Your task to perform on an android device: delete a single message in the gmail app Image 0: 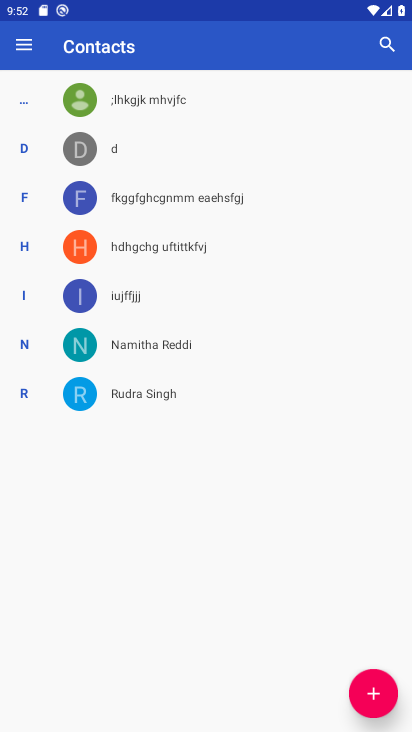
Step 0: press home button
Your task to perform on an android device: delete a single message in the gmail app Image 1: 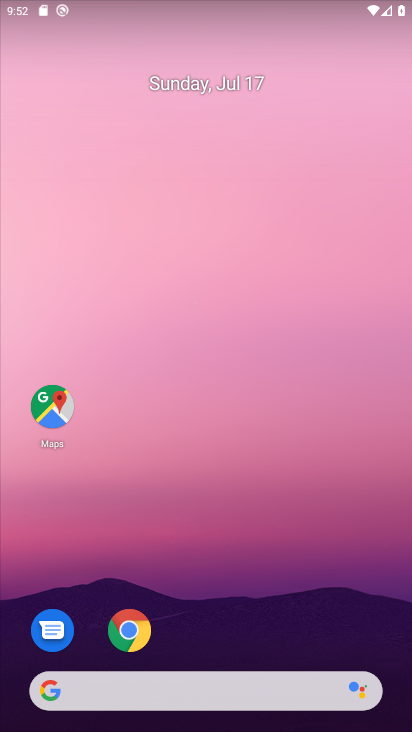
Step 1: drag from (215, 651) to (223, 84)
Your task to perform on an android device: delete a single message in the gmail app Image 2: 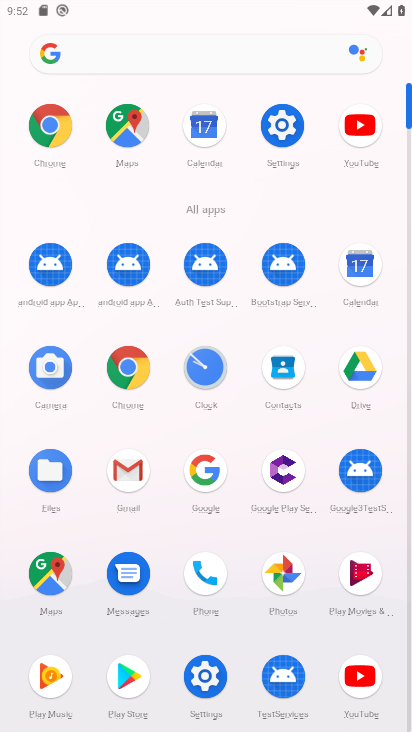
Step 2: click (127, 470)
Your task to perform on an android device: delete a single message in the gmail app Image 3: 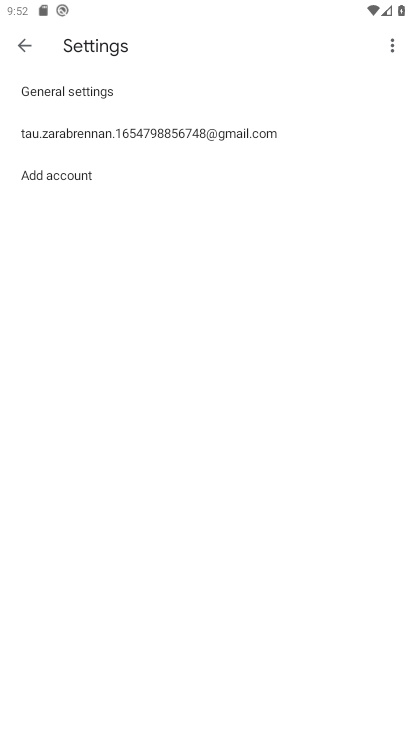
Step 3: click (22, 47)
Your task to perform on an android device: delete a single message in the gmail app Image 4: 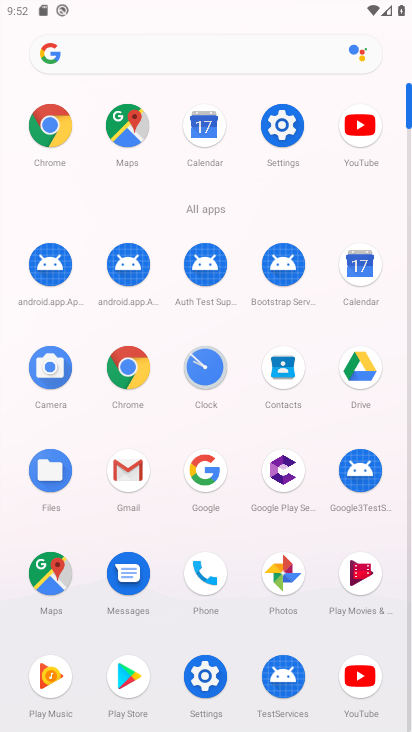
Step 4: click (143, 475)
Your task to perform on an android device: delete a single message in the gmail app Image 5: 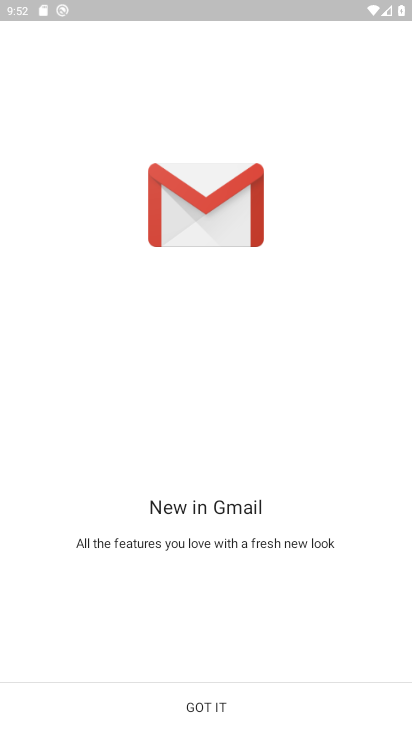
Step 5: click (238, 710)
Your task to perform on an android device: delete a single message in the gmail app Image 6: 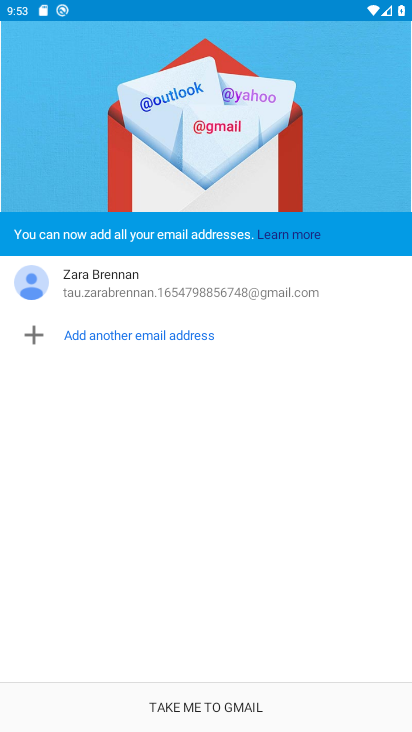
Step 6: click (244, 717)
Your task to perform on an android device: delete a single message in the gmail app Image 7: 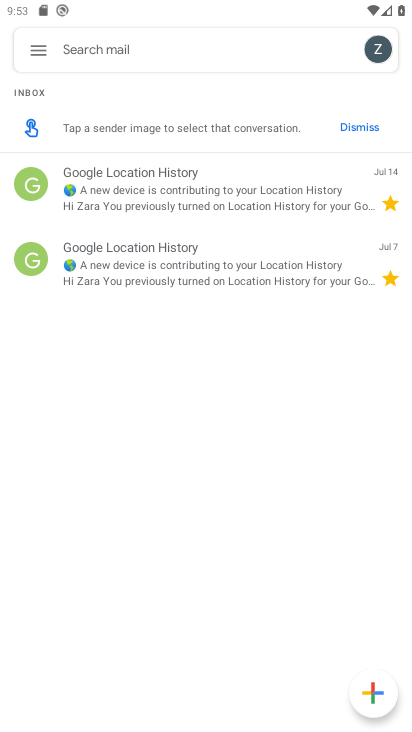
Step 7: click (35, 261)
Your task to perform on an android device: delete a single message in the gmail app Image 8: 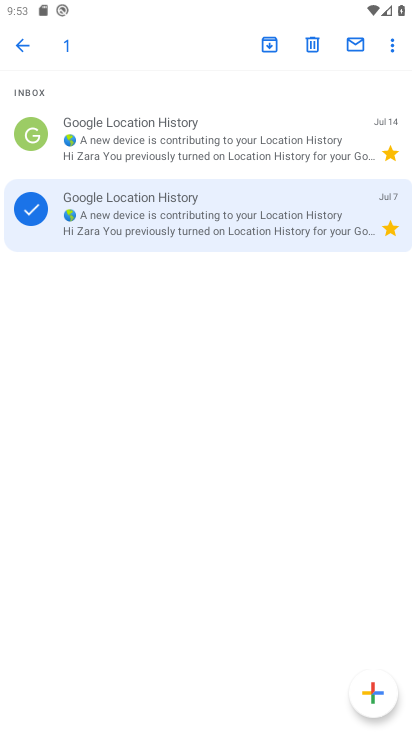
Step 8: click (311, 51)
Your task to perform on an android device: delete a single message in the gmail app Image 9: 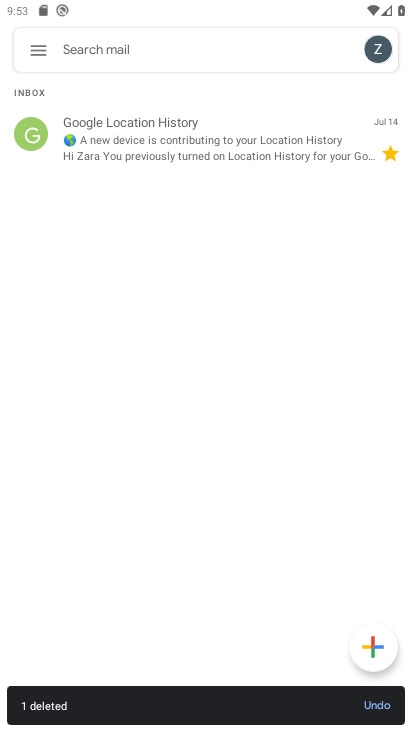
Step 9: task complete